Your task to perform on an android device: set the stopwatch Image 0: 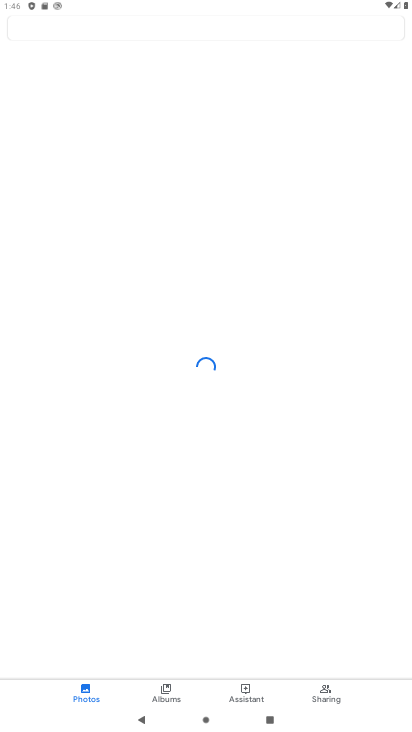
Step 0: press home button
Your task to perform on an android device: set the stopwatch Image 1: 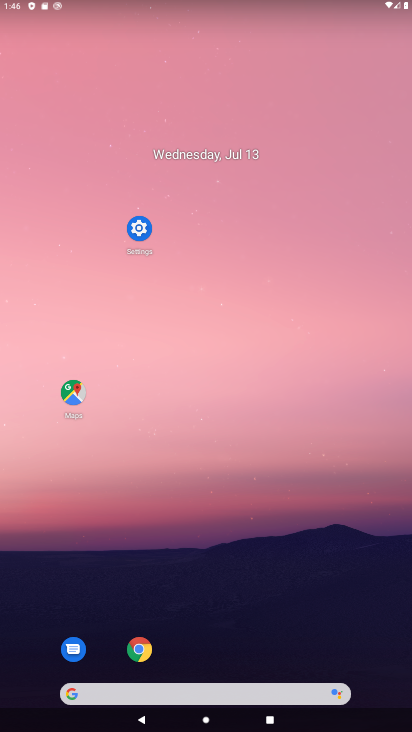
Step 1: drag from (253, 587) to (307, 180)
Your task to perform on an android device: set the stopwatch Image 2: 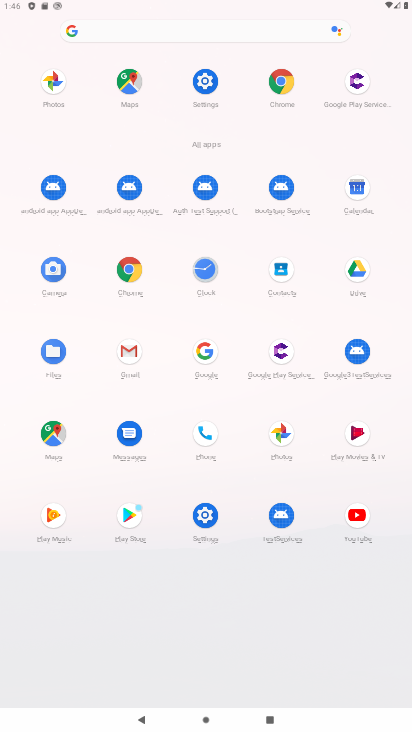
Step 2: drag from (216, 270) to (79, 232)
Your task to perform on an android device: set the stopwatch Image 3: 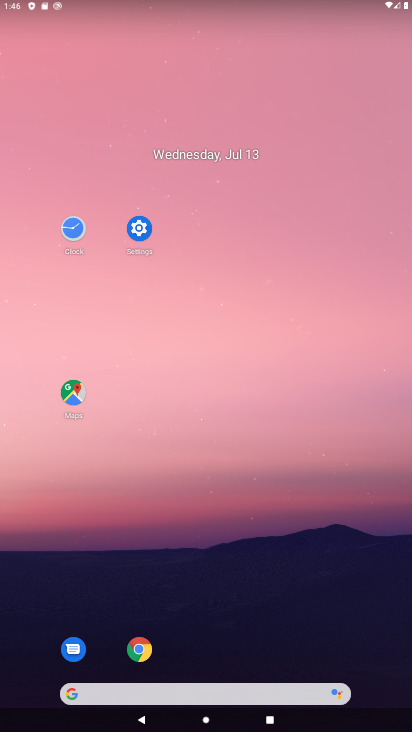
Step 3: click (80, 225)
Your task to perform on an android device: set the stopwatch Image 4: 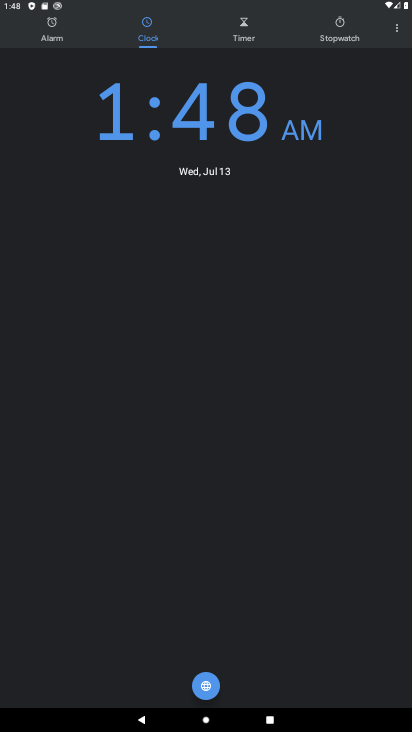
Step 4: click (361, 28)
Your task to perform on an android device: set the stopwatch Image 5: 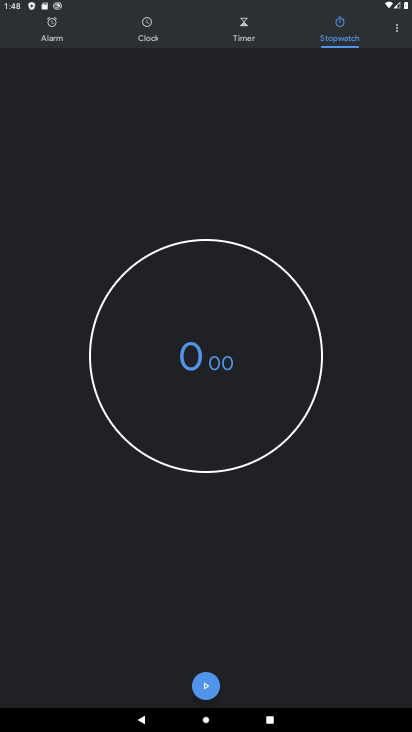
Step 5: click (218, 678)
Your task to perform on an android device: set the stopwatch Image 6: 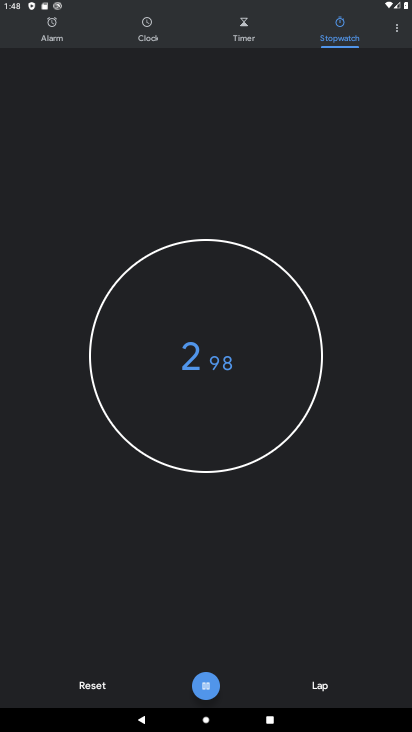
Step 6: task complete